Your task to perform on an android device: Go to internet settings Image 0: 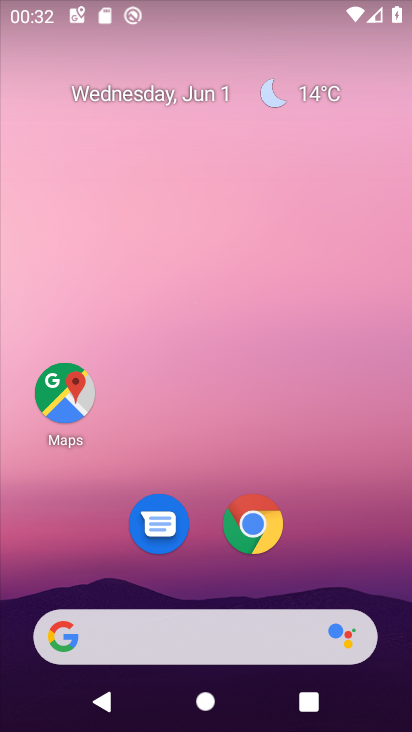
Step 0: drag from (316, 548) to (324, 58)
Your task to perform on an android device: Go to internet settings Image 1: 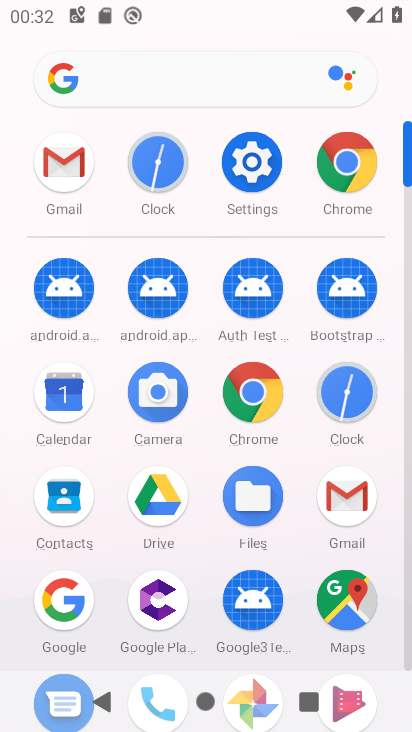
Step 1: click (253, 155)
Your task to perform on an android device: Go to internet settings Image 2: 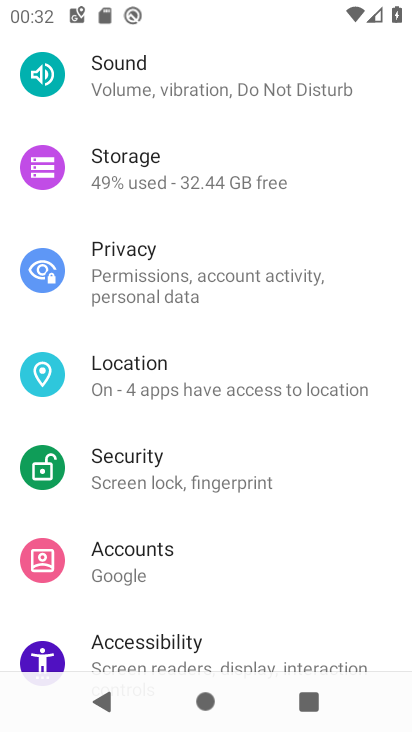
Step 2: drag from (262, 218) to (279, 397)
Your task to perform on an android device: Go to internet settings Image 3: 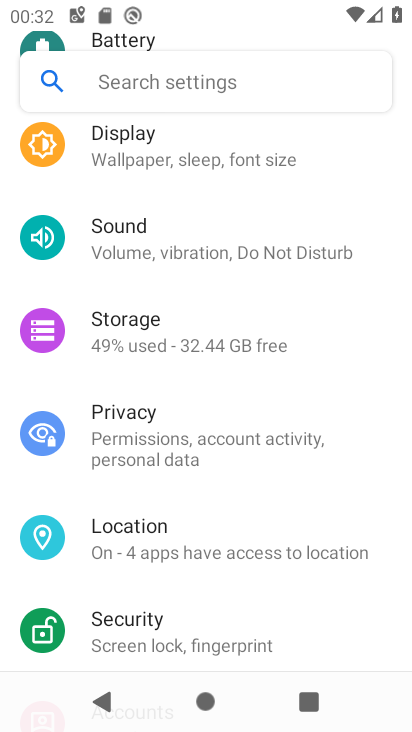
Step 3: drag from (238, 224) to (247, 437)
Your task to perform on an android device: Go to internet settings Image 4: 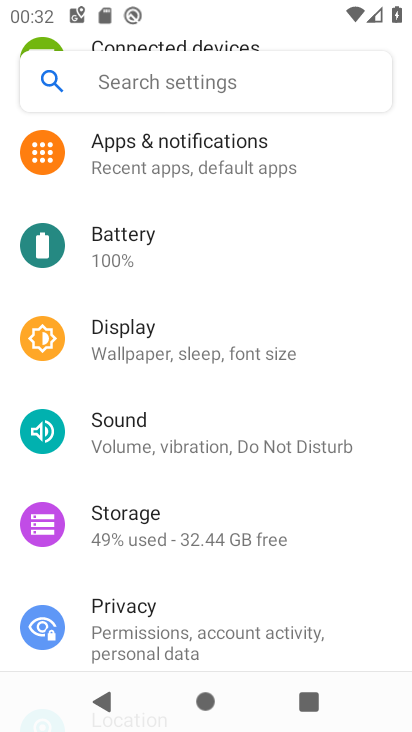
Step 4: drag from (233, 241) to (242, 543)
Your task to perform on an android device: Go to internet settings Image 5: 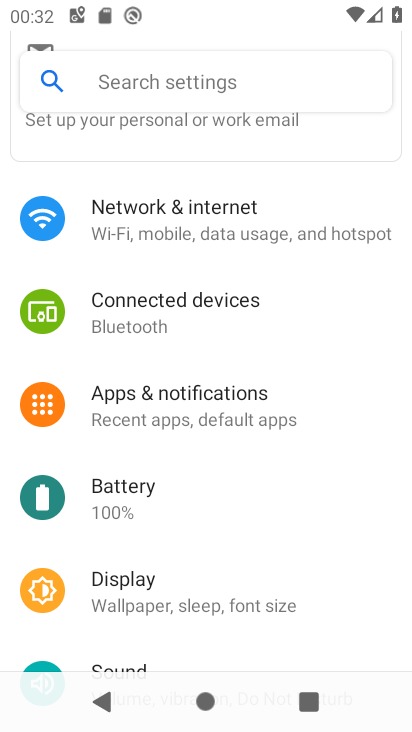
Step 5: click (262, 230)
Your task to perform on an android device: Go to internet settings Image 6: 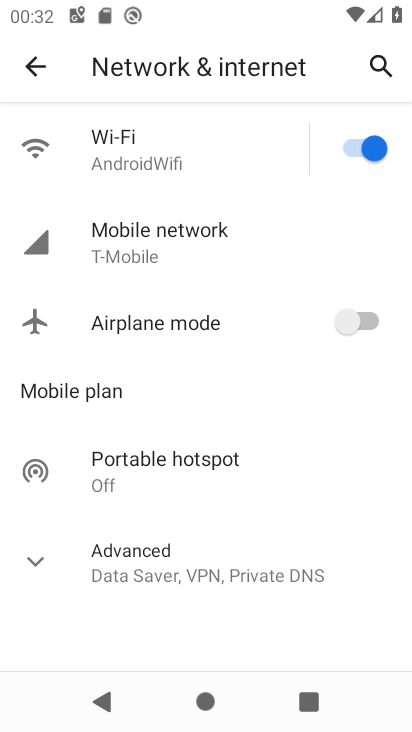
Step 6: task complete